Your task to perform on an android device: Open maps Image 0: 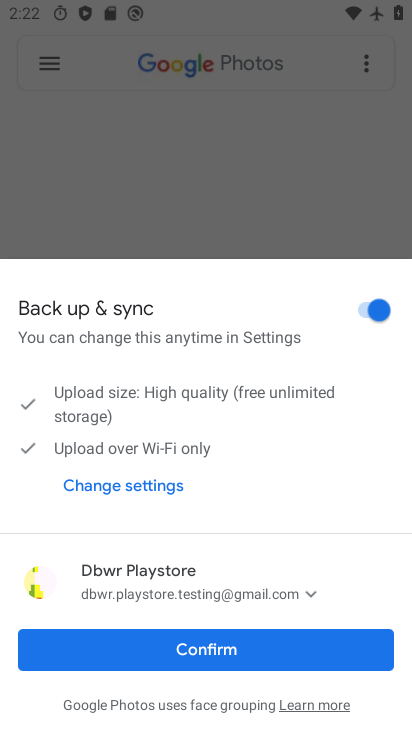
Step 0: press home button
Your task to perform on an android device: Open maps Image 1: 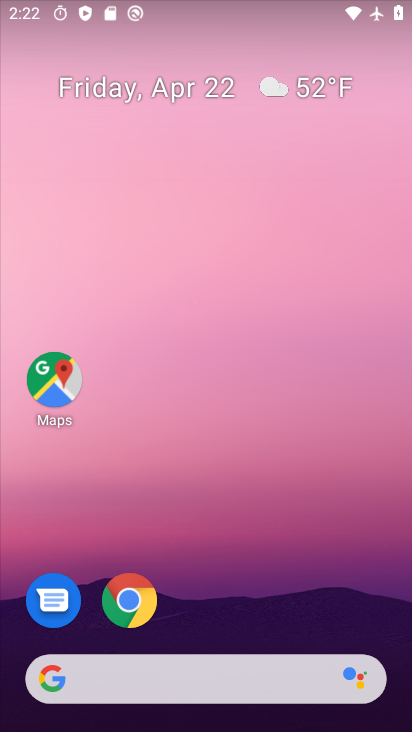
Step 1: drag from (208, 657) to (211, 158)
Your task to perform on an android device: Open maps Image 2: 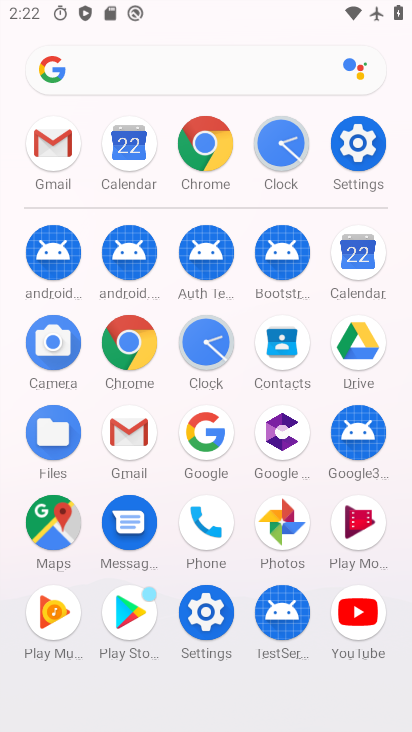
Step 2: click (52, 528)
Your task to perform on an android device: Open maps Image 3: 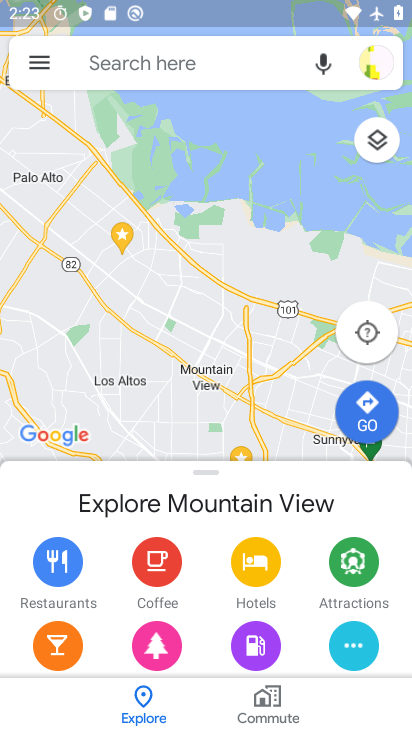
Step 3: task complete